Your task to perform on an android device: open wifi settings Image 0: 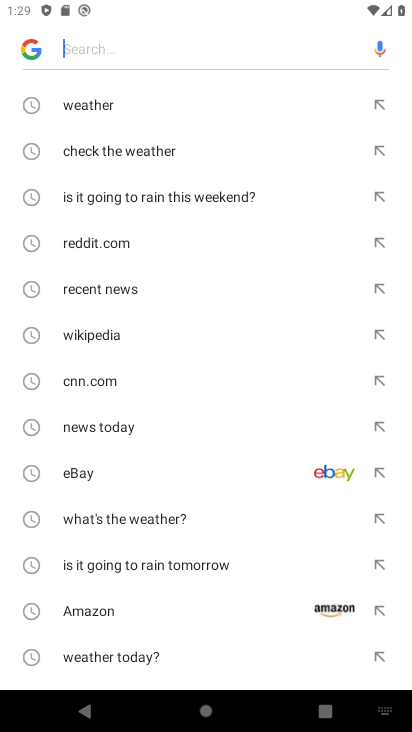
Step 0: press back button
Your task to perform on an android device: open wifi settings Image 1: 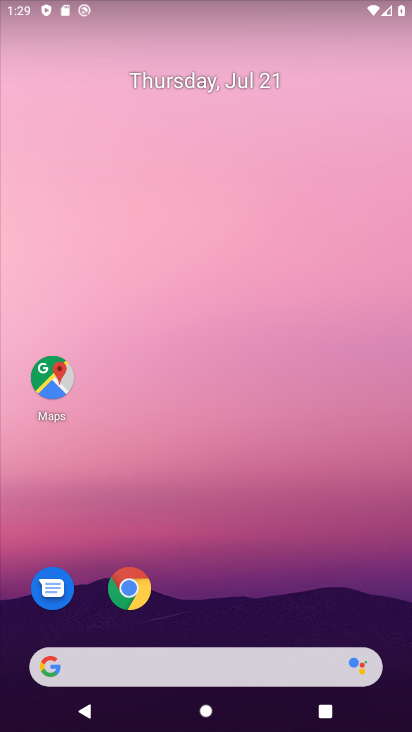
Step 1: drag from (234, 624) to (293, 13)
Your task to perform on an android device: open wifi settings Image 2: 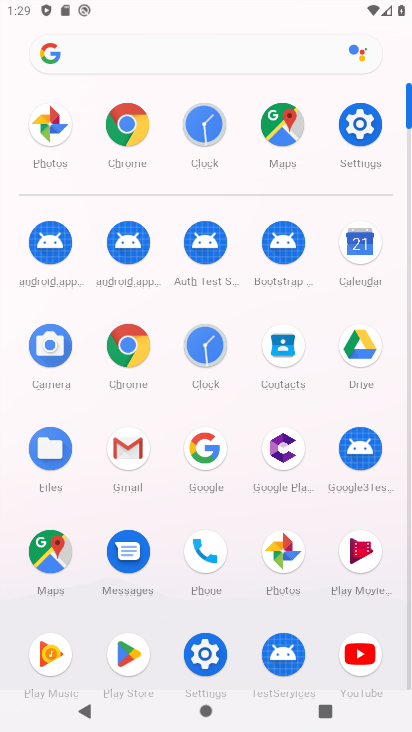
Step 2: click (356, 147)
Your task to perform on an android device: open wifi settings Image 3: 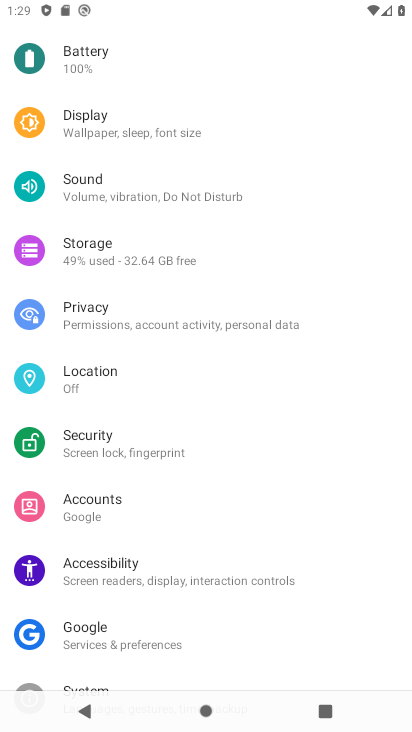
Step 3: drag from (102, 166) to (96, 694)
Your task to perform on an android device: open wifi settings Image 4: 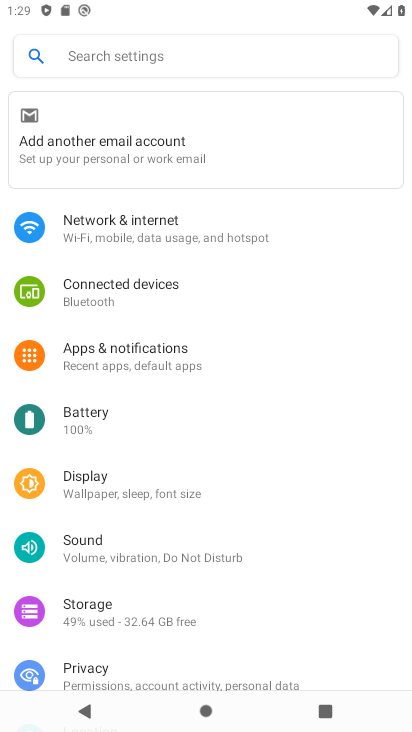
Step 4: click (111, 227)
Your task to perform on an android device: open wifi settings Image 5: 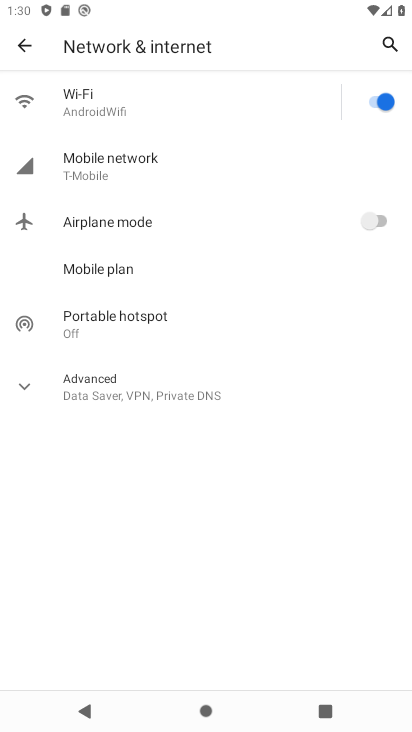
Step 5: click (90, 89)
Your task to perform on an android device: open wifi settings Image 6: 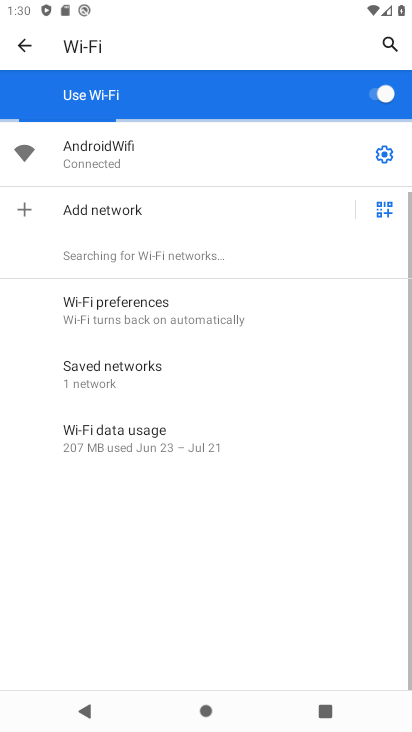
Step 6: task complete